Your task to perform on an android device: Open display settings Image 0: 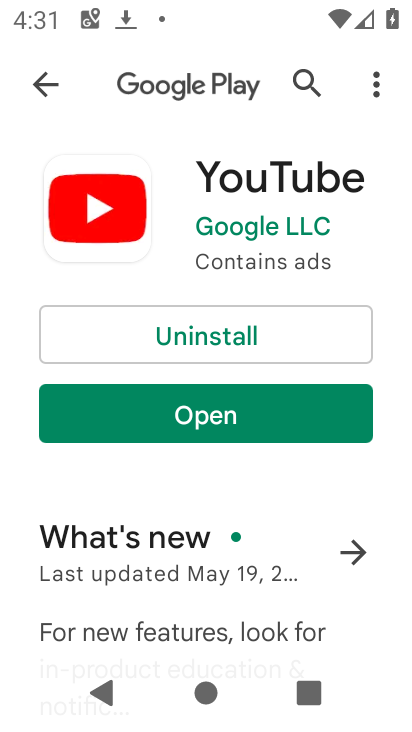
Step 0: press home button
Your task to perform on an android device: Open display settings Image 1: 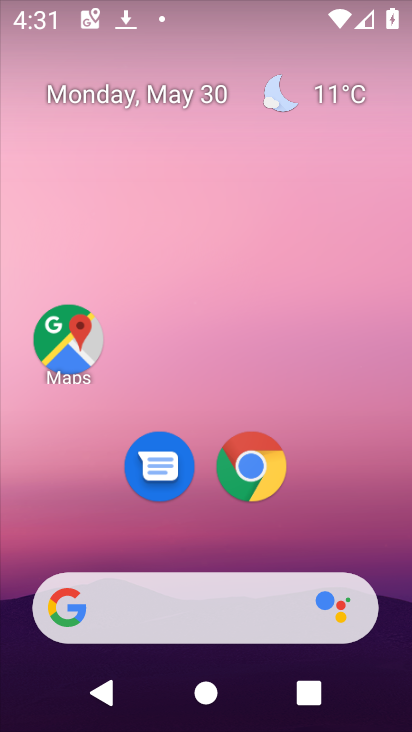
Step 1: drag from (341, 500) to (214, 35)
Your task to perform on an android device: Open display settings Image 2: 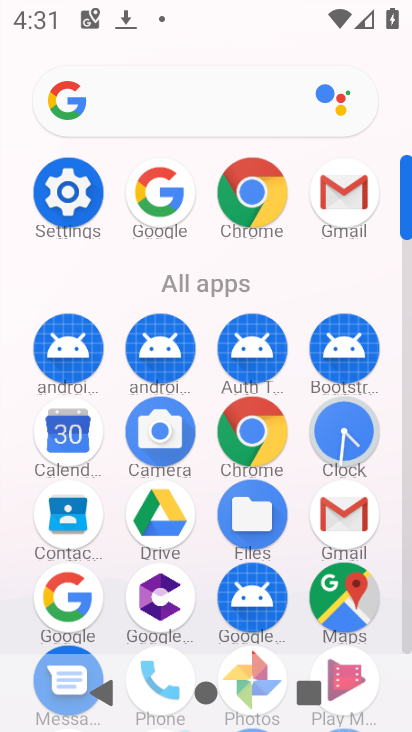
Step 2: click (76, 183)
Your task to perform on an android device: Open display settings Image 3: 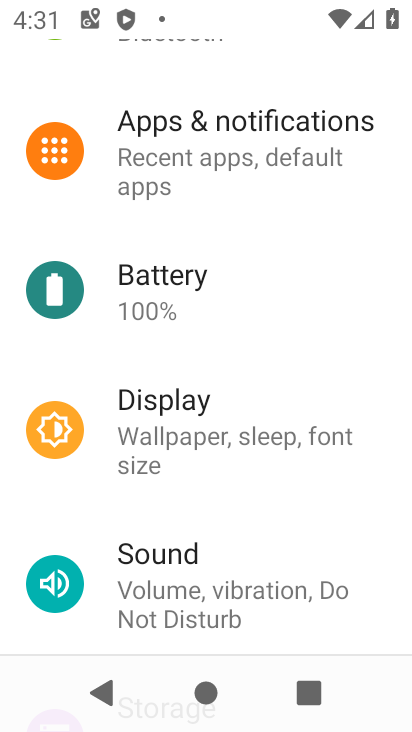
Step 3: click (246, 436)
Your task to perform on an android device: Open display settings Image 4: 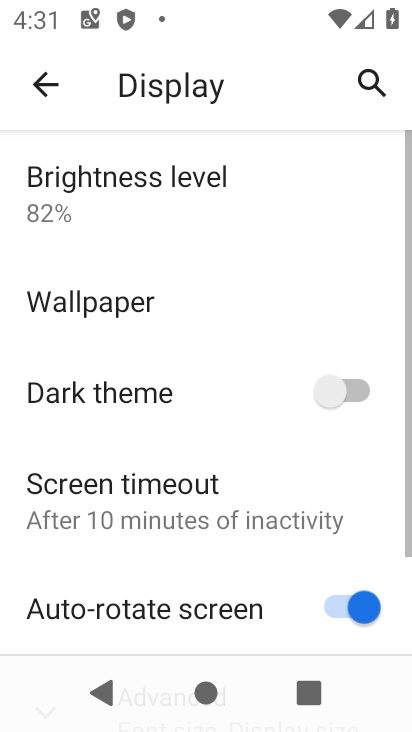
Step 4: task complete